Your task to perform on an android device: see creations saved in the google photos Image 0: 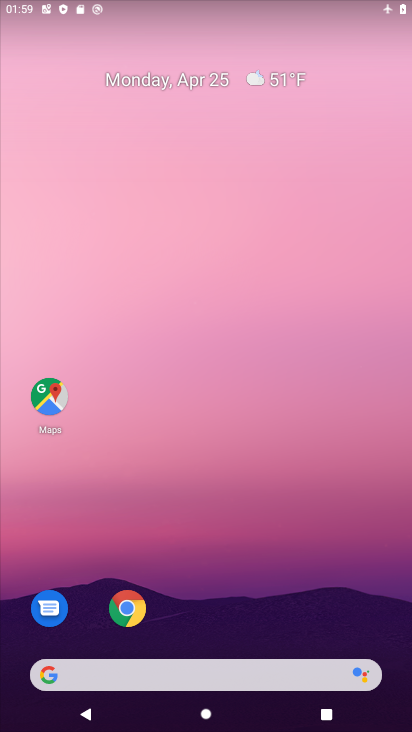
Step 0: drag from (210, 640) to (334, 129)
Your task to perform on an android device: see creations saved in the google photos Image 1: 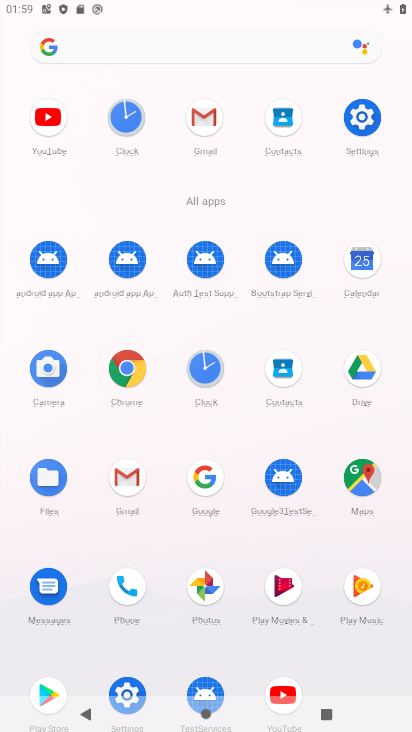
Step 1: click (204, 594)
Your task to perform on an android device: see creations saved in the google photos Image 2: 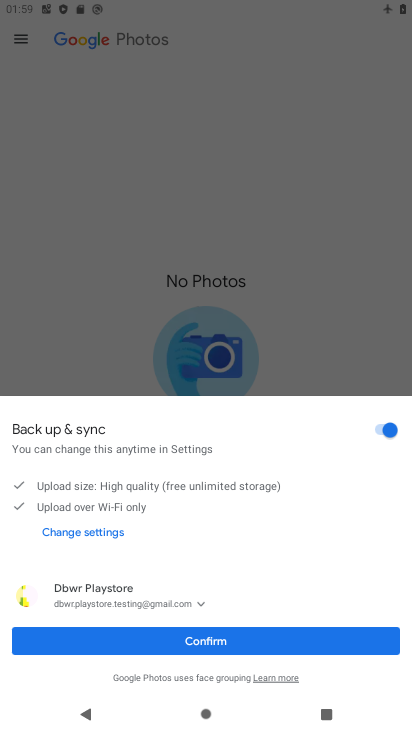
Step 2: click (226, 645)
Your task to perform on an android device: see creations saved in the google photos Image 3: 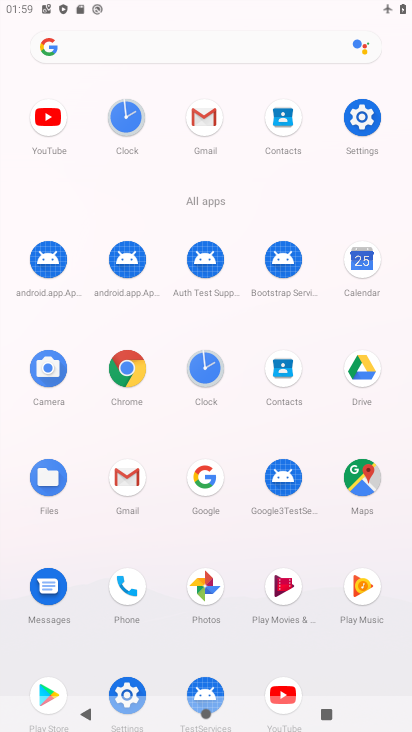
Step 3: click (210, 602)
Your task to perform on an android device: see creations saved in the google photos Image 4: 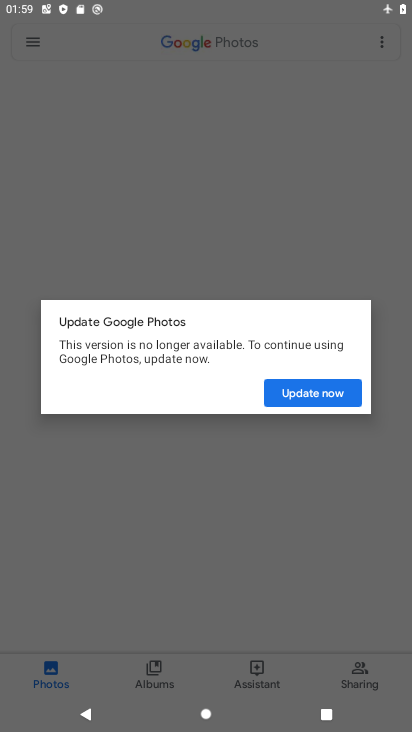
Step 4: click (321, 396)
Your task to perform on an android device: see creations saved in the google photos Image 5: 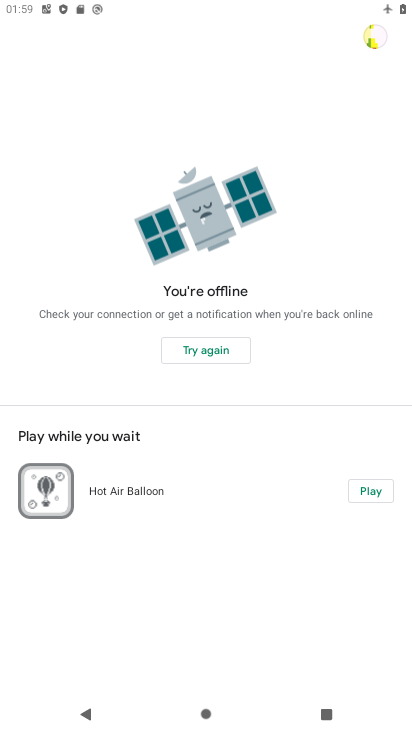
Step 5: click (220, 346)
Your task to perform on an android device: see creations saved in the google photos Image 6: 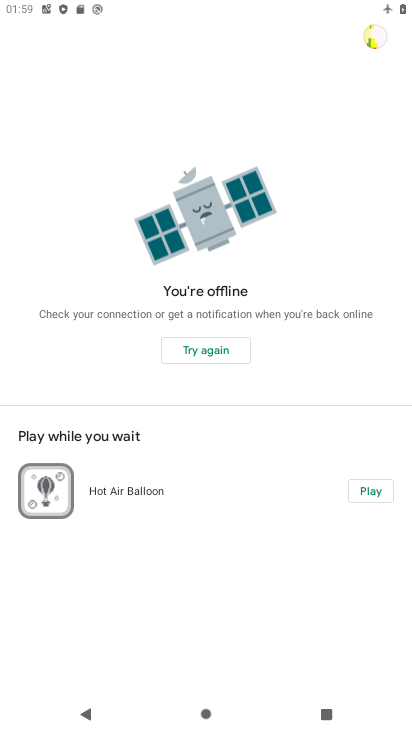
Step 6: task complete